Your task to perform on an android device: add a contact Image 0: 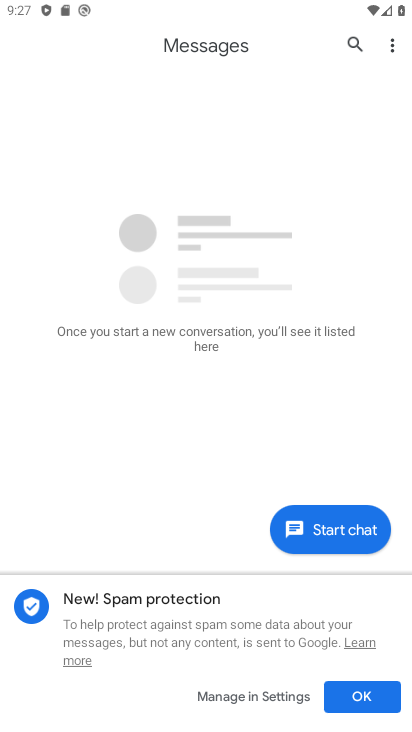
Step 0: press home button
Your task to perform on an android device: add a contact Image 1: 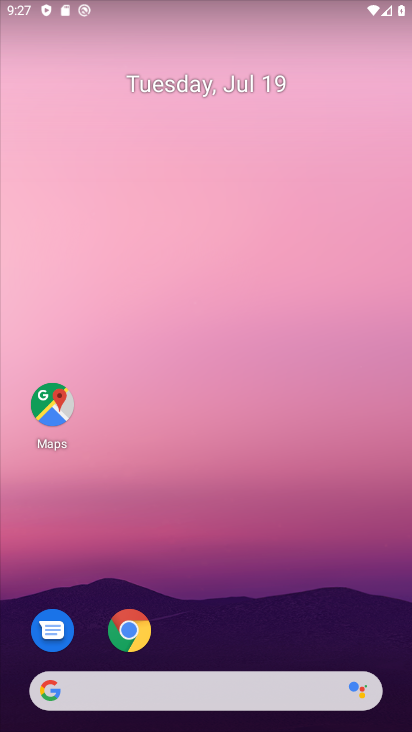
Step 1: drag from (23, 606) to (273, 54)
Your task to perform on an android device: add a contact Image 2: 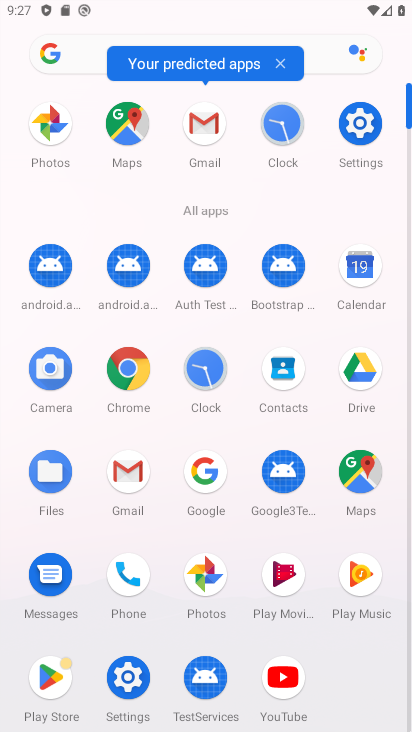
Step 2: click (120, 585)
Your task to perform on an android device: add a contact Image 3: 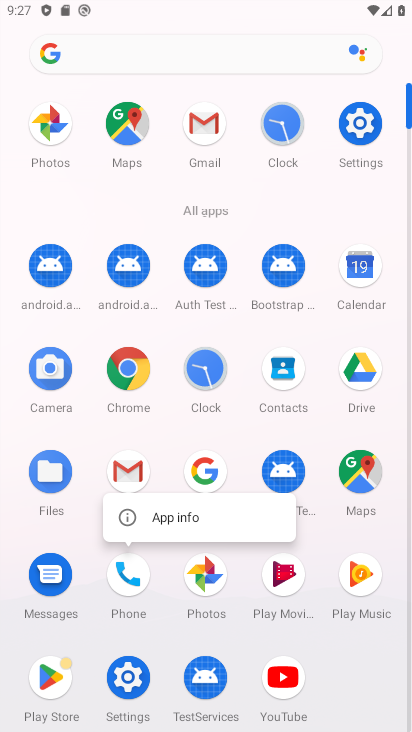
Step 3: click (126, 574)
Your task to perform on an android device: add a contact Image 4: 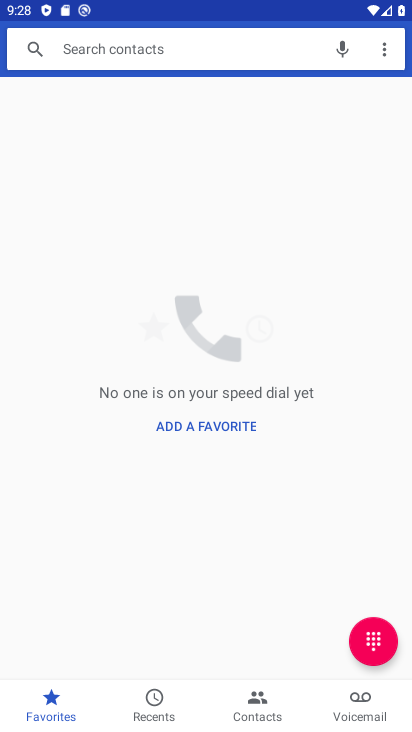
Step 4: click (251, 700)
Your task to perform on an android device: add a contact Image 5: 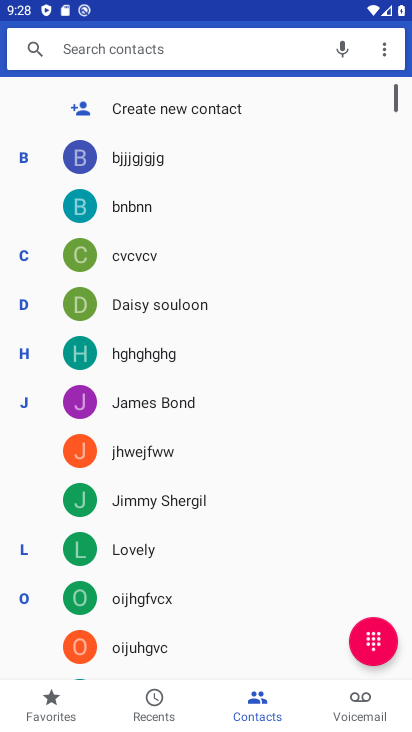
Step 5: click (168, 102)
Your task to perform on an android device: add a contact Image 6: 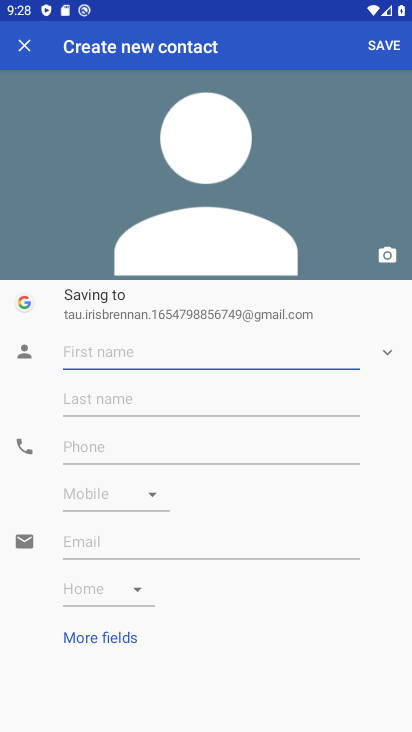
Step 6: type "vfgtyred"
Your task to perform on an android device: add a contact Image 7: 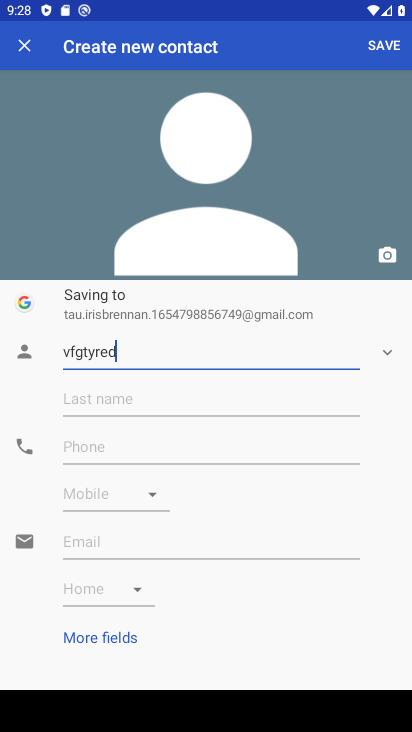
Step 7: click (389, 52)
Your task to perform on an android device: add a contact Image 8: 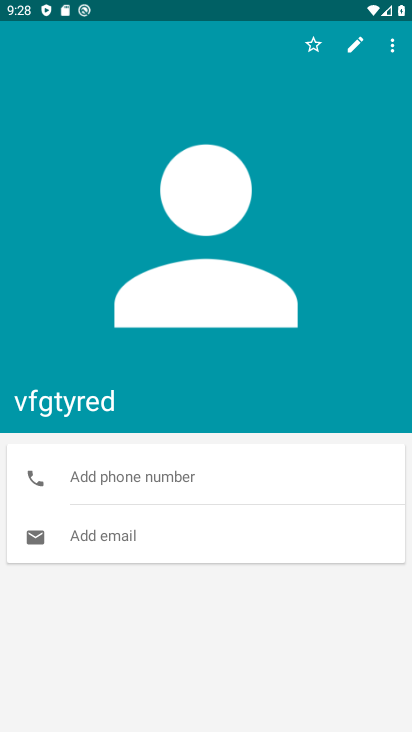
Step 8: task complete